Your task to perform on an android device: Clear the shopping cart on bestbuy. Add "sony triple a" to the cart on bestbuy Image 0: 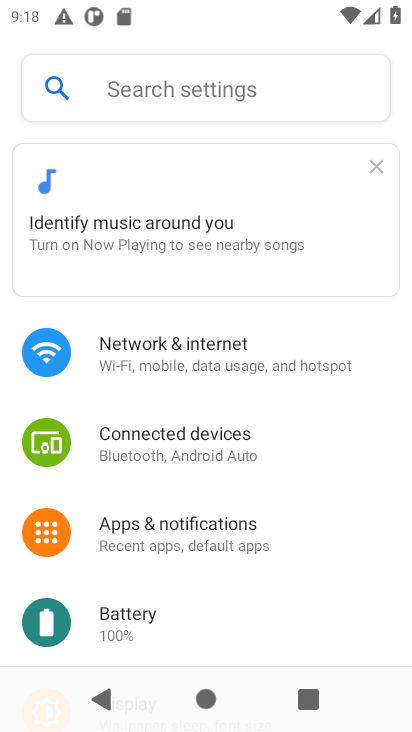
Step 0: press home button
Your task to perform on an android device: Clear the shopping cart on bestbuy. Add "sony triple a" to the cart on bestbuy Image 1: 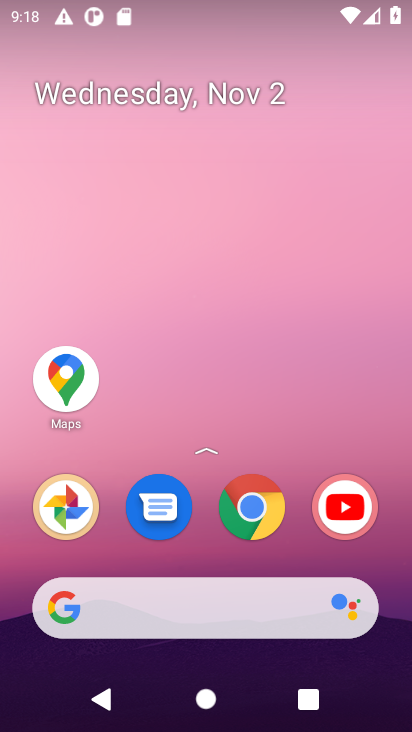
Step 1: click (272, 605)
Your task to perform on an android device: Clear the shopping cart on bestbuy. Add "sony triple a" to the cart on bestbuy Image 2: 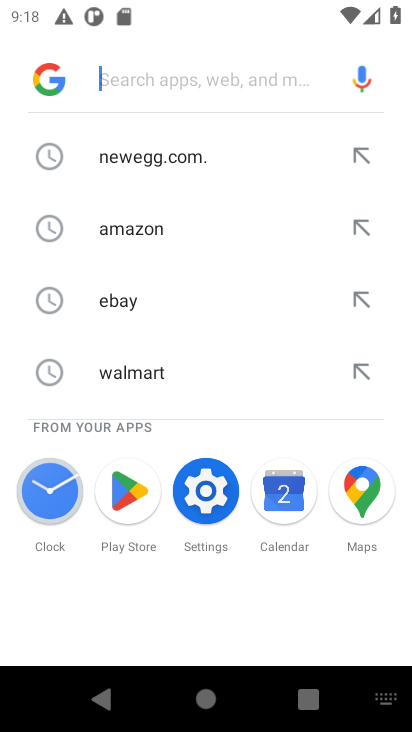
Step 2: type "bestbuy"
Your task to perform on an android device: Clear the shopping cart on bestbuy. Add "sony triple a" to the cart on bestbuy Image 3: 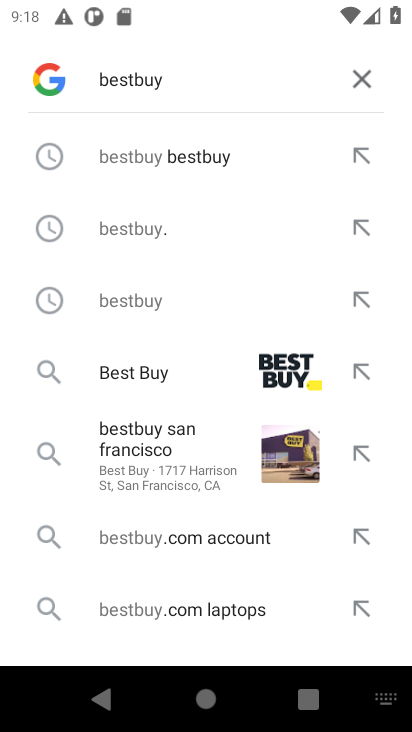
Step 3: click (198, 150)
Your task to perform on an android device: Clear the shopping cart on bestbuy. Add "sony triple a" to the cart on bestbuy Image 4: 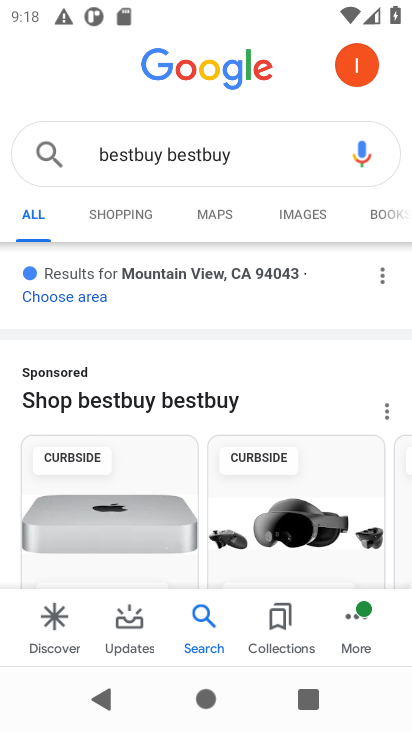
Step 4: task complete